Your task to perform on an android device: all mails in gmail Image 0: 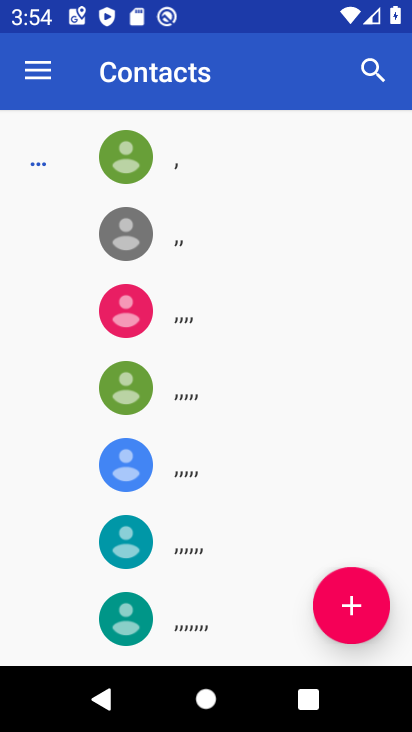
Step 0: press home button
Your task to perform on an android device: all mails in gmail Image 1: 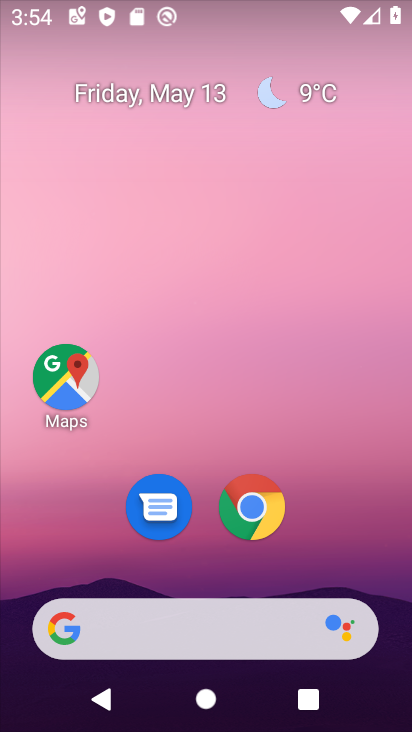
Step 1: drag from (339, 574) to (312, 73)
Your task to perform on an android device: all mails in gmail Image 2: 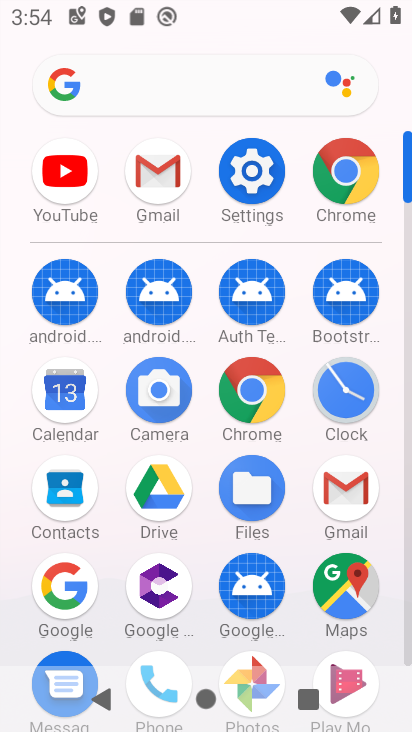
Step 2: click (160, 174)
Your task to perform on an android device: all mails in gmail Image 3: 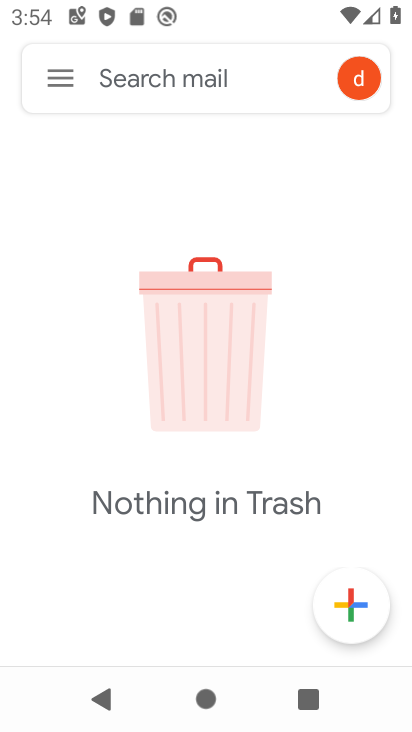
Step 3: click (76, 90)
Your task to perform on an android device: all mails in gmail Image 4: 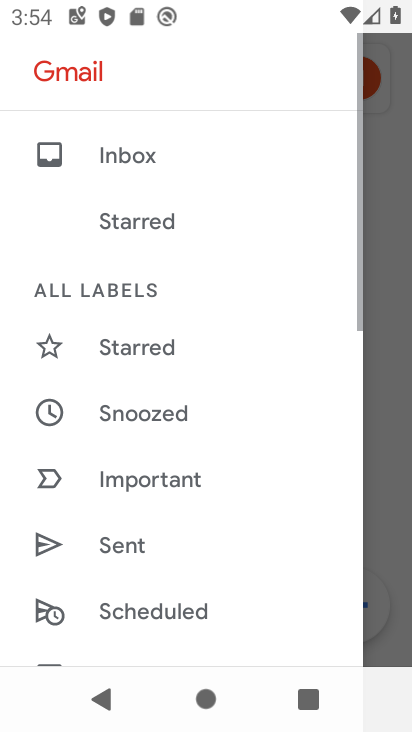
Step 4: drag from (179, 571) to (211, 161)
Your task to perform on an android device: all mails in gmail Image 5: 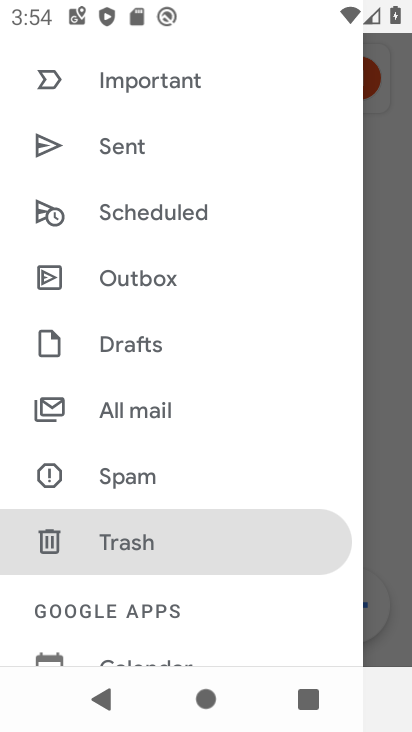
Step 5: drag from (190, 470) to (233, 99)
Your task to perform on an android device: all mails in gmail Image 6: 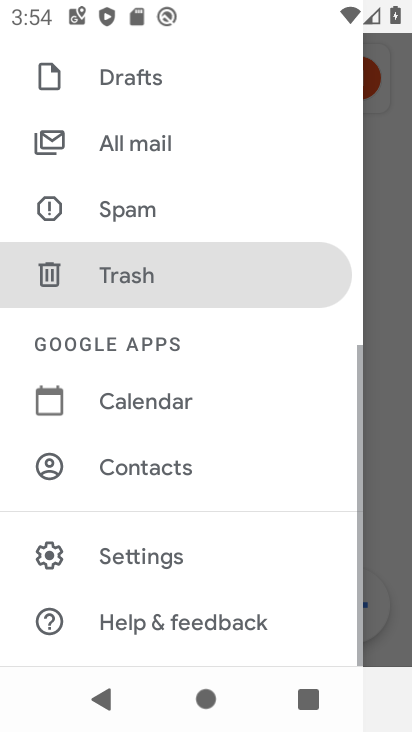
Step 6: click (172, 136)
Your task to perform on an android device: all mails in gmail Image 7: 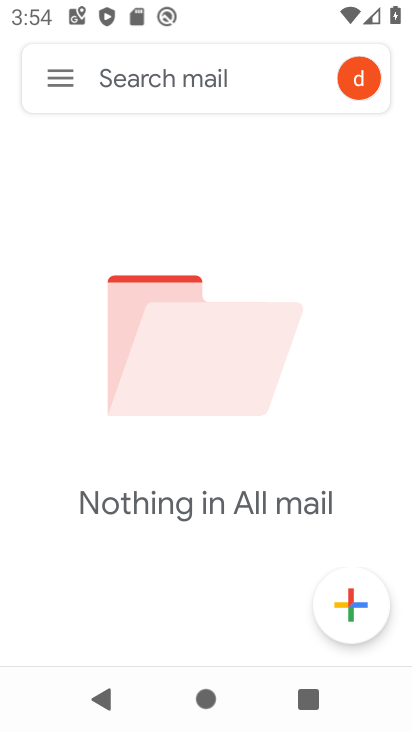
Step 7: task complete